Your task to perform on an android device: Go to Reddit.com Image 0: 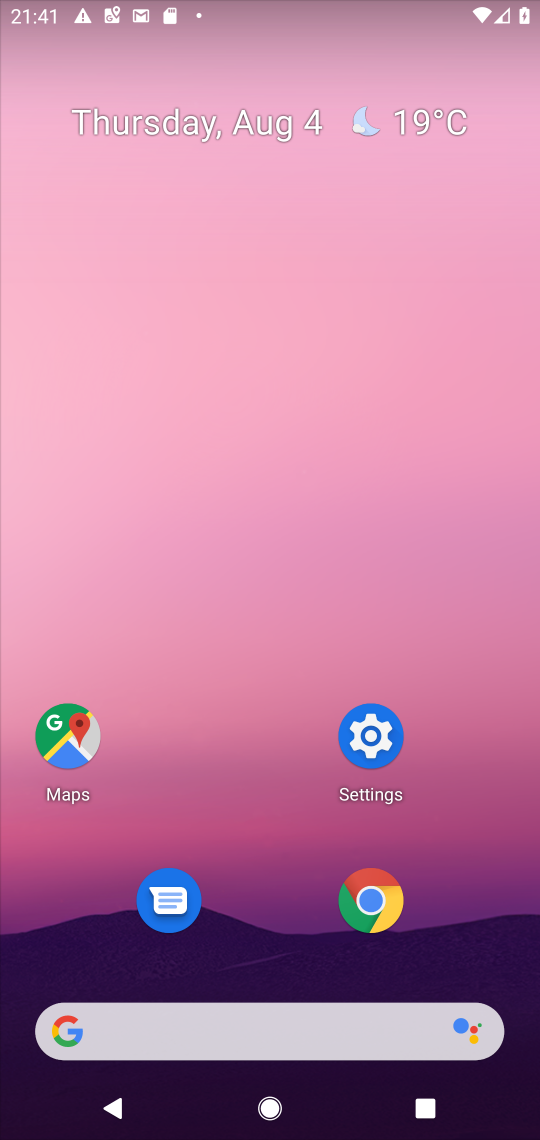
Step 0: click (366, 895)
Your task to perform on an android device: Go to Reddit.com Image 1: 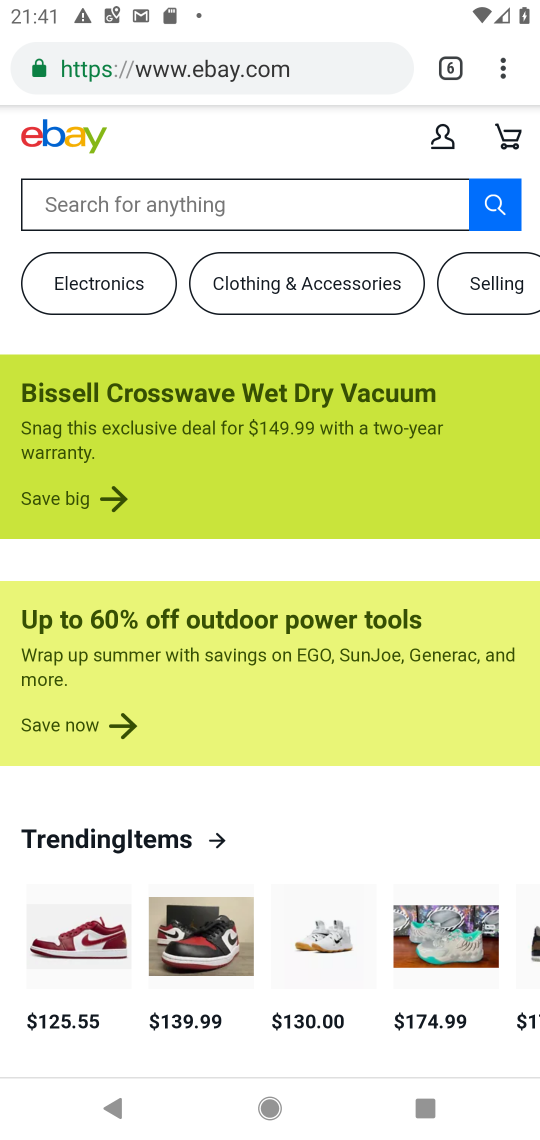
Step 1: drag from (501, 74) to (327, 226)
Your task to perform on an android device: Go to Reddit.com Image 2: 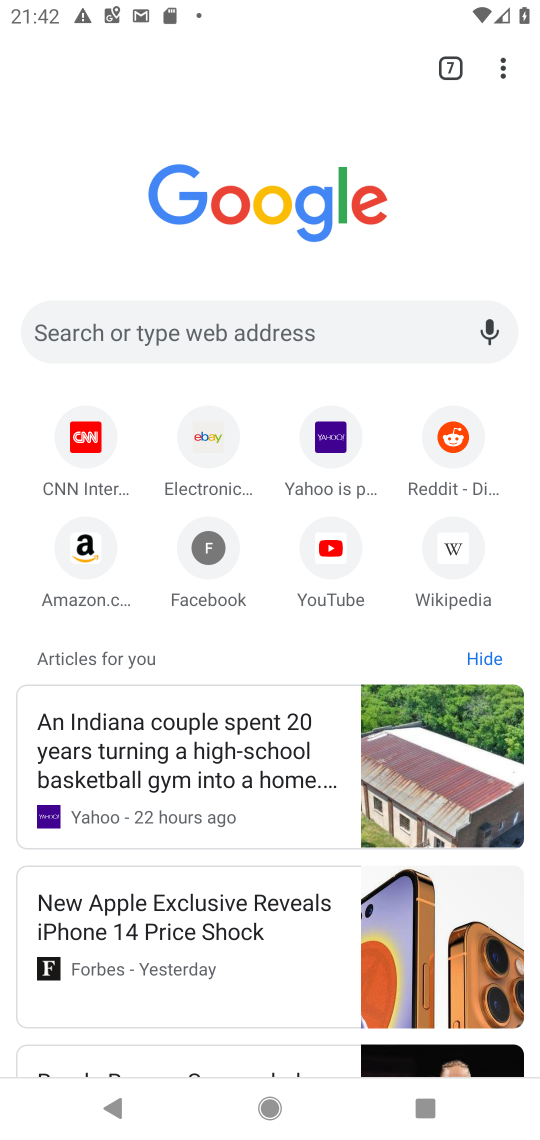
Step 2: click (438, 456)
Your task to perform on an android device: Go to Reddit.com Image 3: 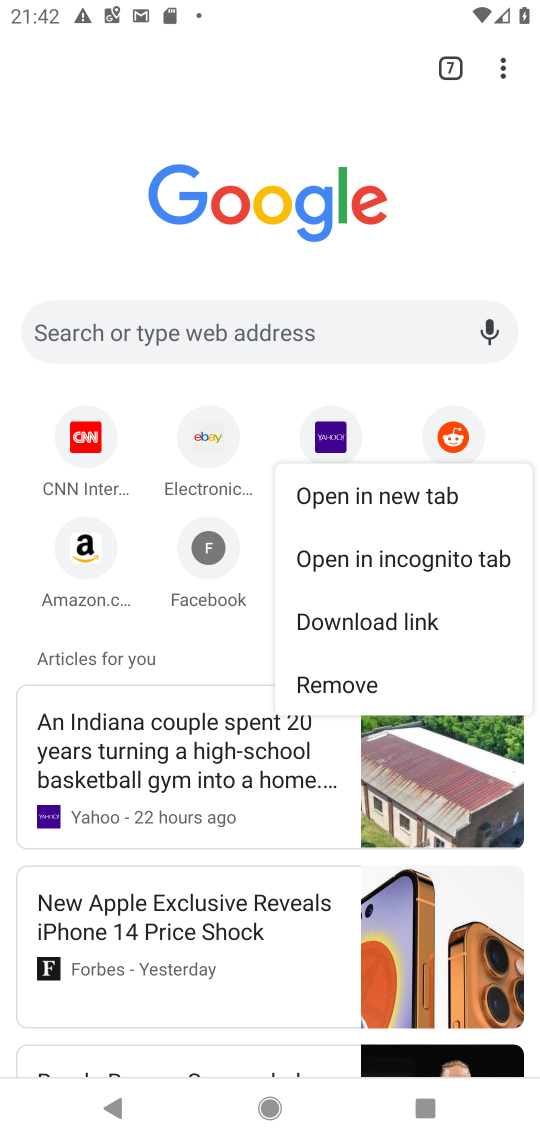
Step 3: click (446, 433)
Your task to perform on an android device: Go to Reddit.com Image 4: 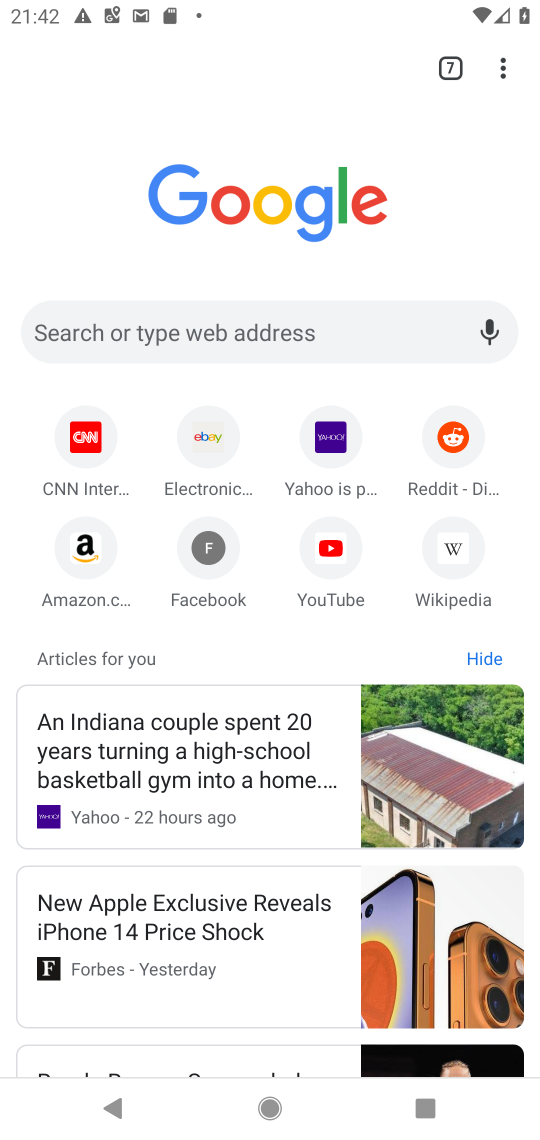
Step 4: click (449, 447)
Your task to perform on an android device: Go to Reddit.com Image 5: 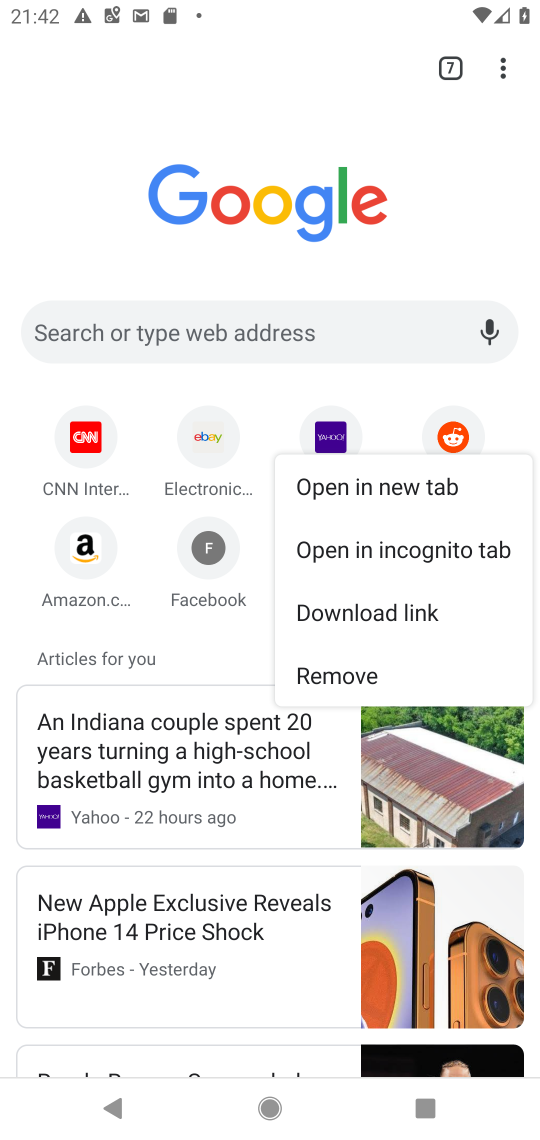
Step 5: click (451, 432)
Your task to perform on an android device: Go to Reddit.com Image 6: 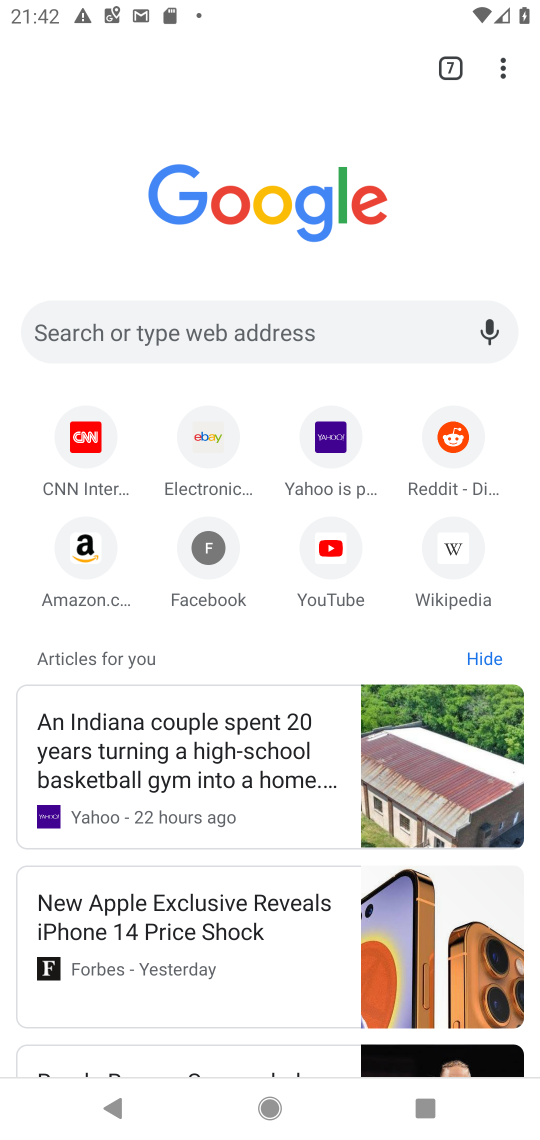
Step 6: click (445, 431)
Your task to perform on an android device: Go to Reddit.com Image 7: 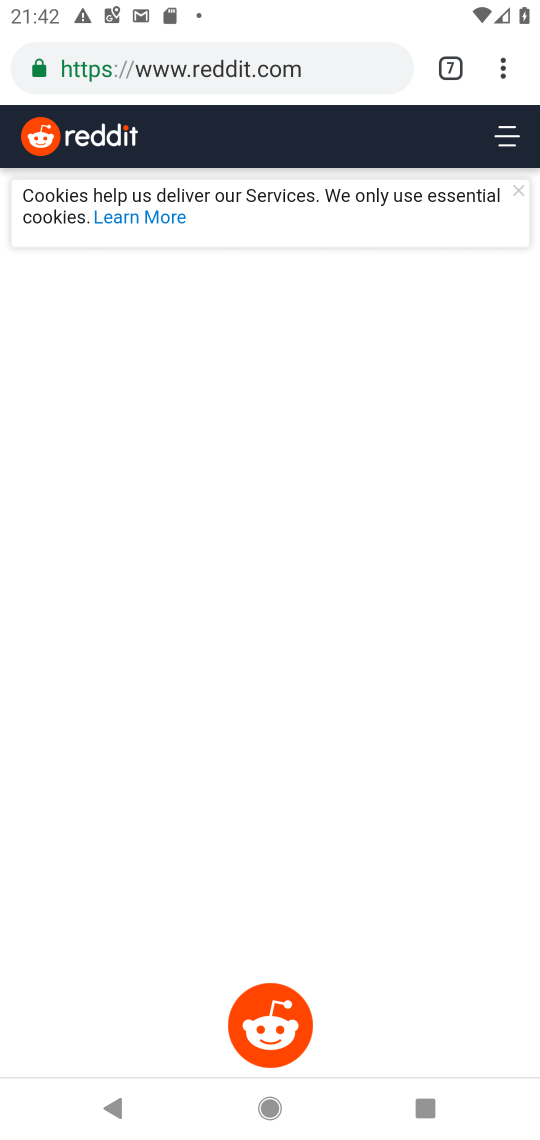
Step 7: task complete